Your task to perform on an android device: Go to privacy settings Image 0: 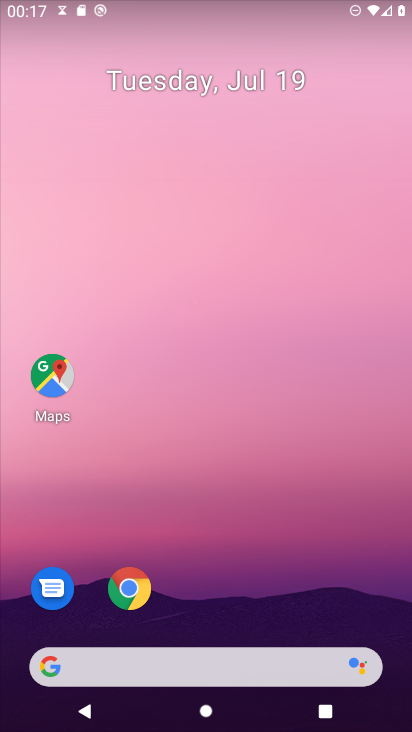
Step 0: drag from (244, 586) to (269, 160)
Your task to perform on an android device: Go to privacy settings Image 1: 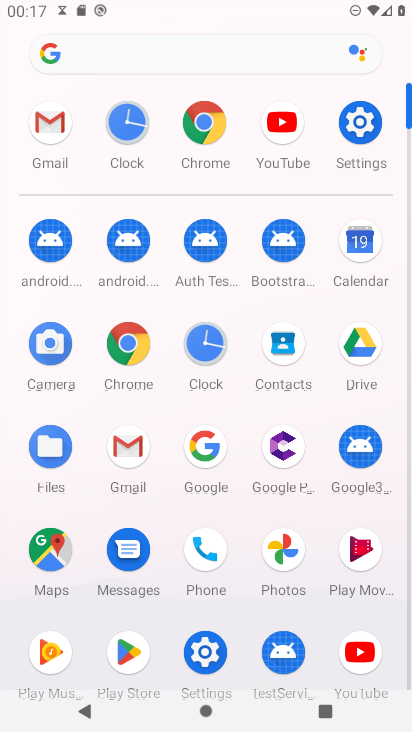
Step 1: click (353, 130)
Your task to perform on an android device: Go to privacy settings Image 2: 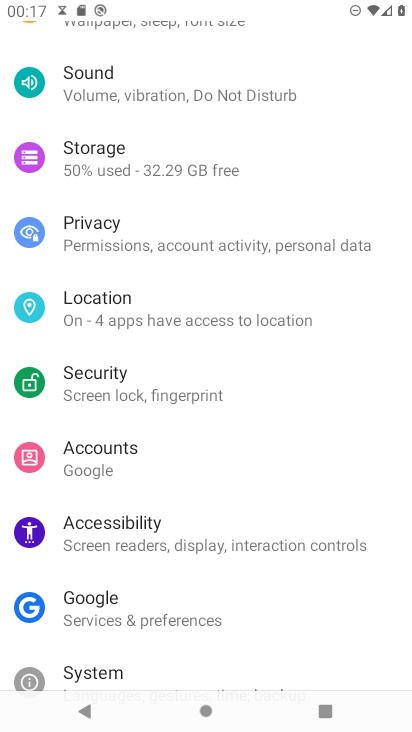
Step 2: click (112, 222)
Your task to perform on an android device: Go to privacy settings Image 3: 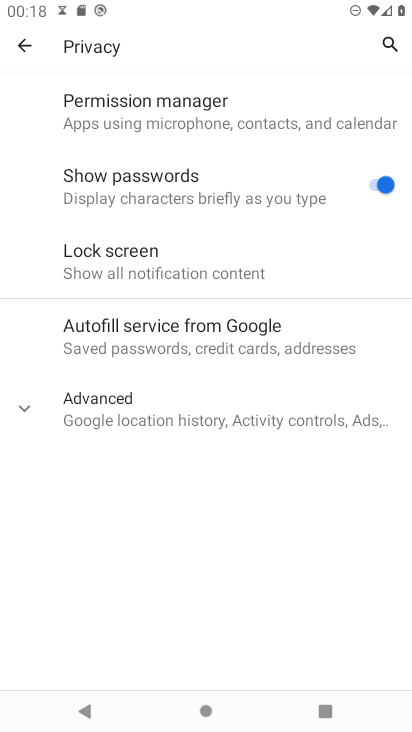
Step 3: task complete